Your task to perform on an android device: Open privacy settings Image 0: 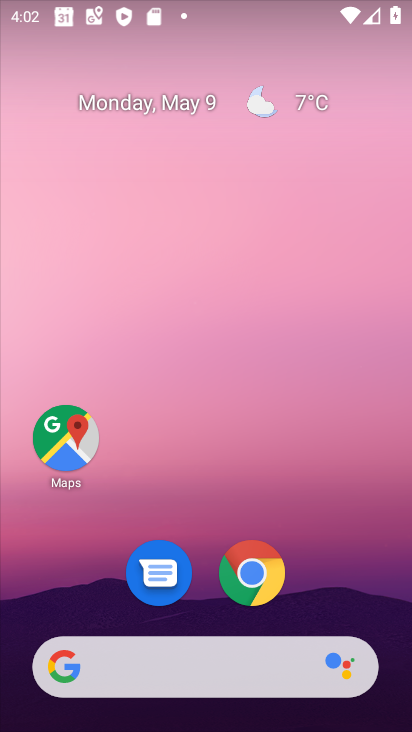
Step 0: drag from (338, 622) to (411, 33)
Your task to perform on an android device: Open privacy settings Image 1: 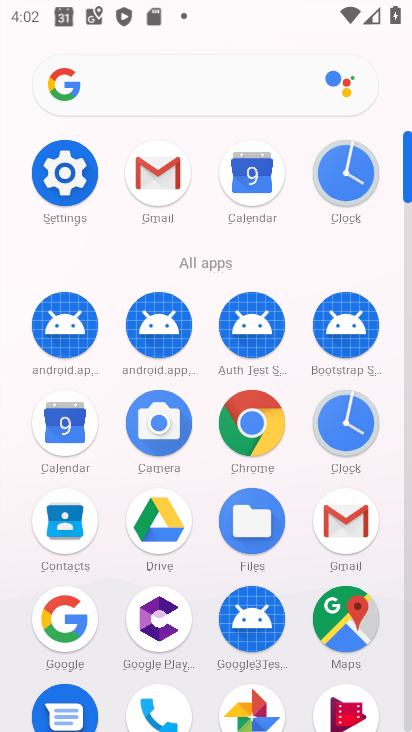
Step 1: click (70, 173)
Your task to perform on an android device: Open privacy settings Image 2: 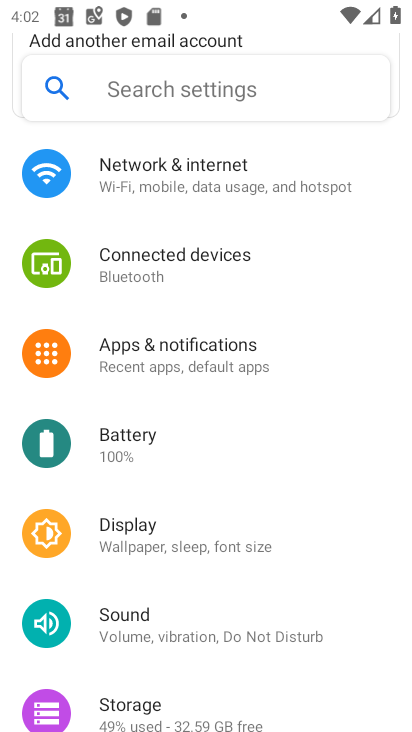
Step 2: drag from (335, 633) to (350, 370)
Your task to perform on an android device: Open privacy settings Image 3: 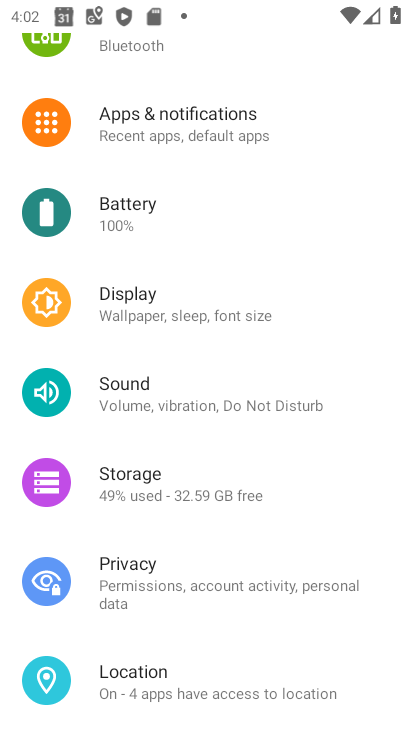
Step 3: click (131, 581)
Your task to perform on an android device: Open privacy settings Image 4: 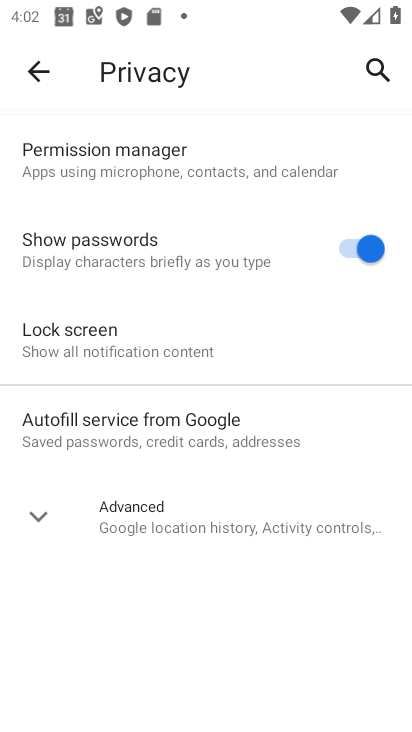
Step 4: task complete